Your task to perform on an android device: Open Maps and search for coffee Image 0: 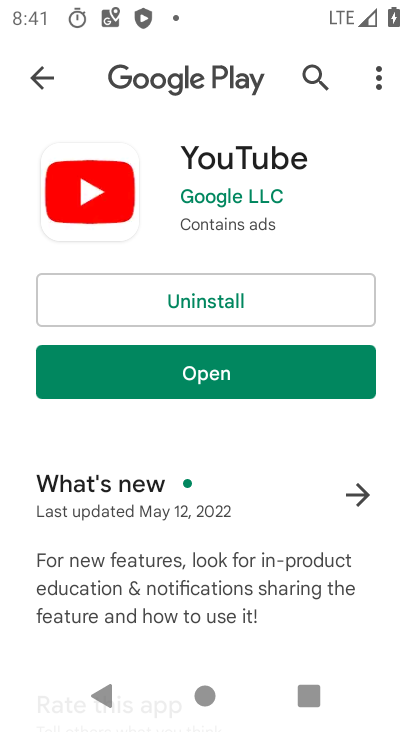
Step 0: press home button
Your task to perform on an android device: Open Maps and search for coffee Image 1: 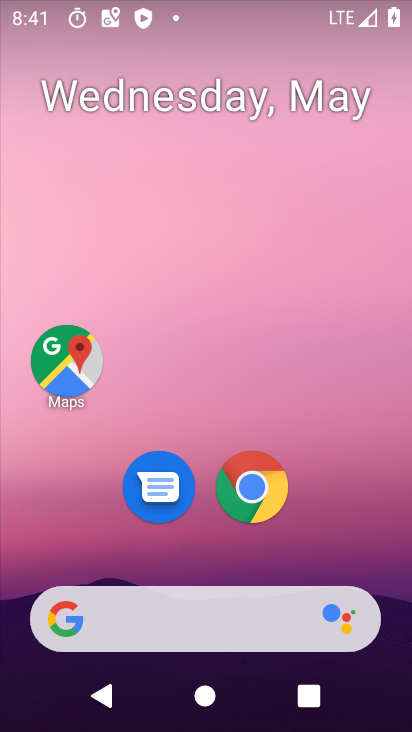
Step 1: click (88, 355)
Your task to perform on an android device: Open Maps and search for coffee Image 2: 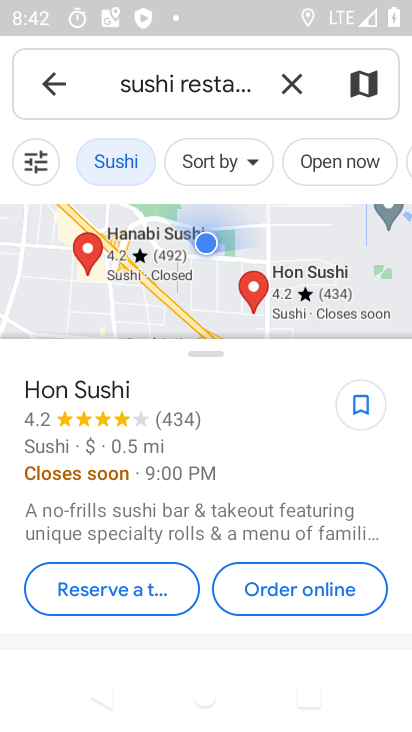
Step 2: click (291, 70)
Your task to perform on an android device: Open Maps and search for coffee Image 3: 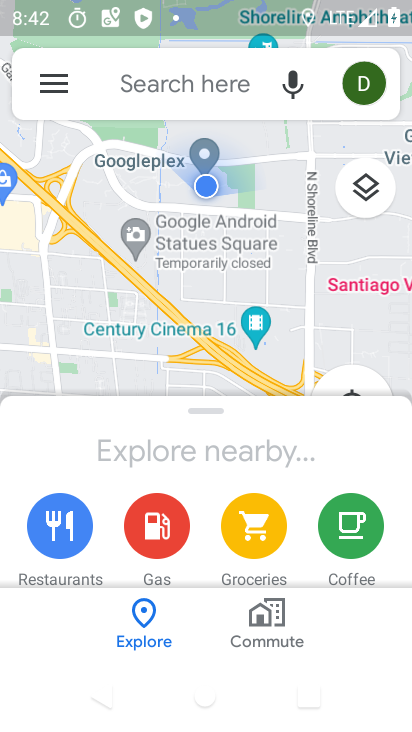
Step 3: click (212, 75)
Your task to perform on an android device: Open Maps and search for coffee Image 4: 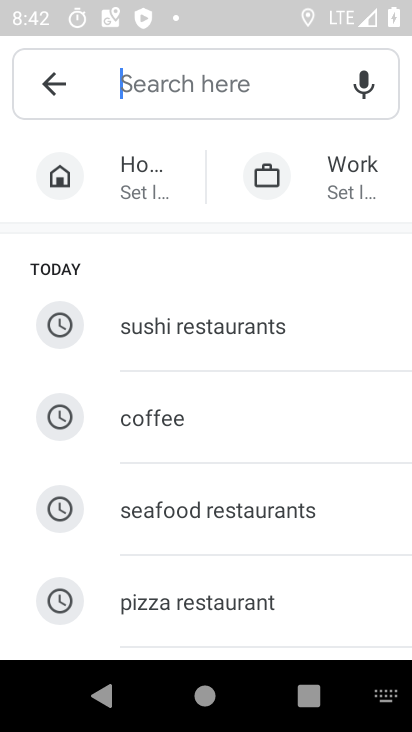
Step 4: click (175, 420)
Your task to perform on an android device: Open Maps and search for coffee Image 5: 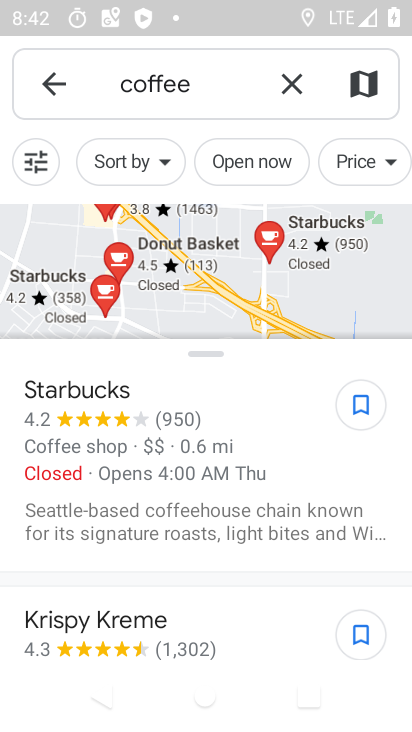
Step 5: task complete